Your task to perform on an android device: Do I have any events tomorrow? Image 0: 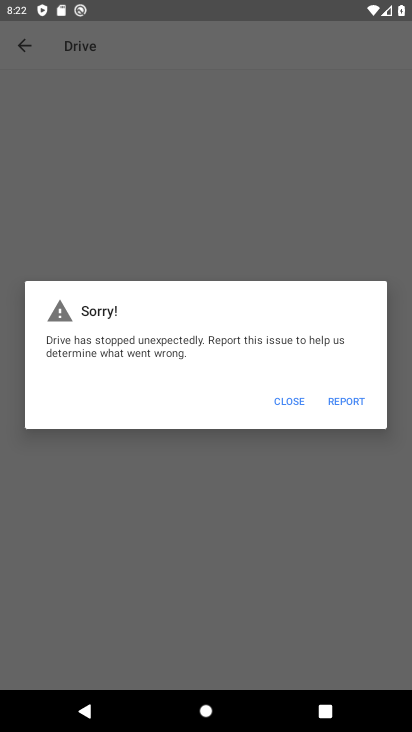
Step 0: press home button
Your task to perform on an android device: Do I have any events tomorrow? Image 1: 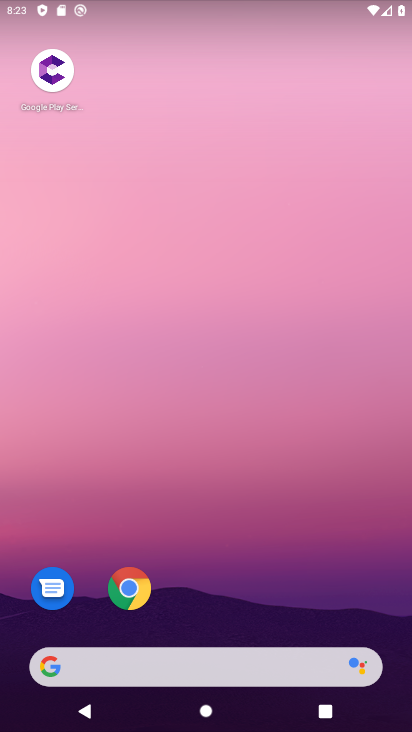
Step 1: drag from (213, 643) to (350, 19)
Your task to perform on an android device: Do I have any events tomorrow? Image 2: 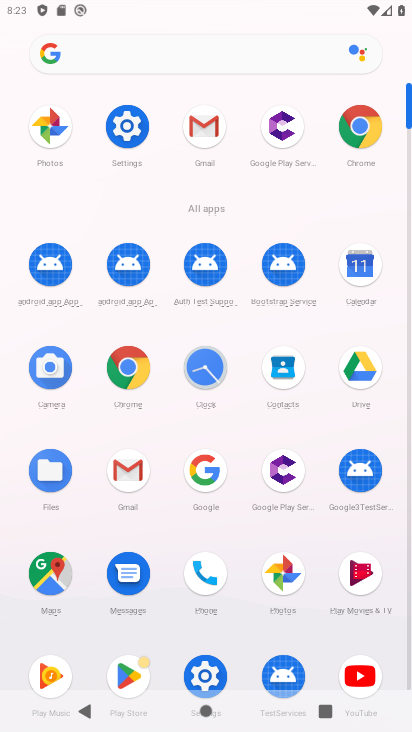
Step 2: click (356, 264)
Your task to perform on an android device: Do I have any events tomorrow? Image 3: 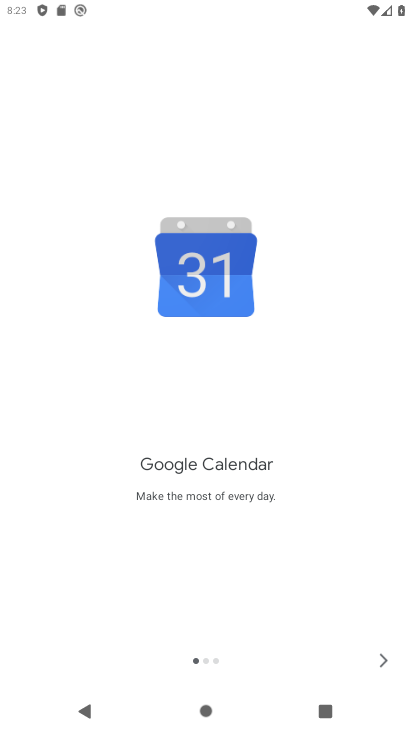
Step 3: click (385, 648)
Your task to perform on an android device: Do I have any events tomorrow? Image 4: 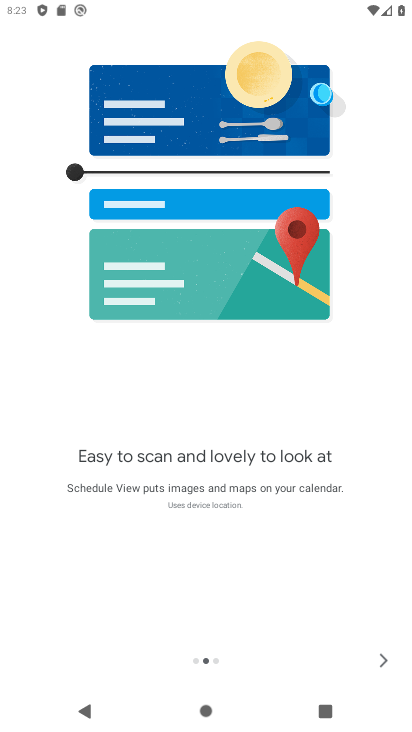
Step 4: click (384, 652)
Your task to perform on an android device: Do I have any events tomorrow? Image 5: 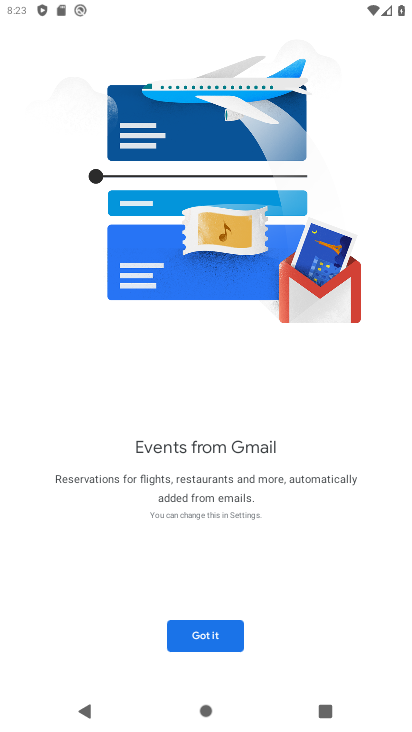
Step 5: click (224, 631)
Your task to perform on an android device: Do I have any events tomorrow? Image 6: 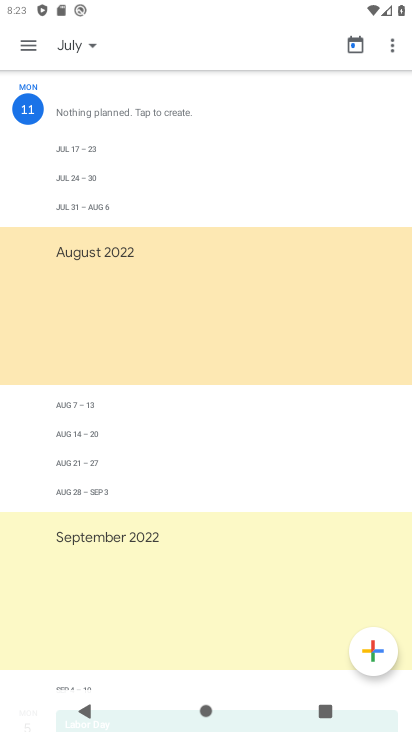
Step 6: click (10, 44)
Your task to perform on an android device: Do I have any events tomorrow? Image 7: 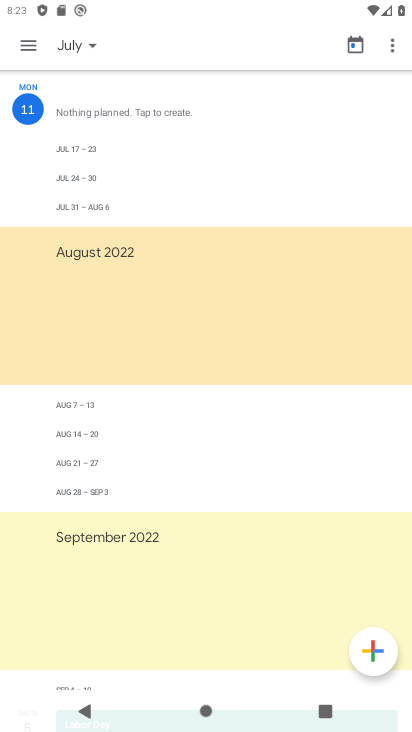
Step 7: click (31, 41)
Your task to perform on an android device: Do I have any events tomorrow? Image 8: 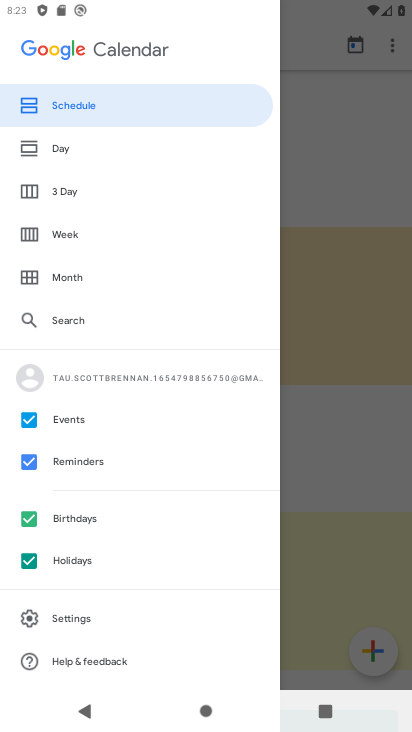
Step 8: click (81, 229)
Your task to perform on an android device: Do I have any events tomorrow? Image 9: 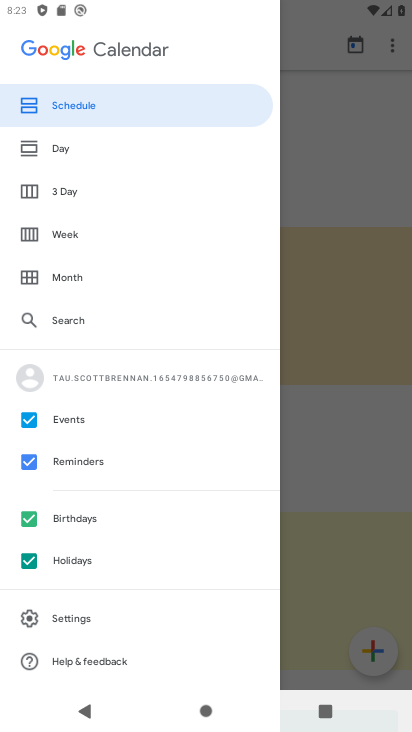
Step 9: click (34, 241)
Your task to perform on an android device: Do I have any events tomorrow? Image 10: 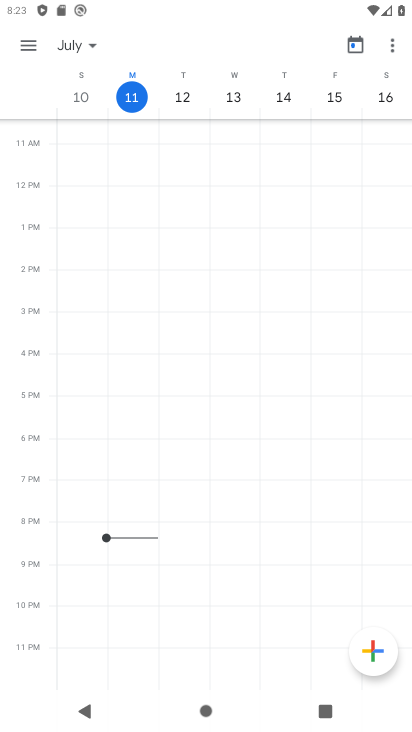
Step 10: click (175, 88)
Your task to perform on an android device: Do I have any events tomorrow? Image 11: 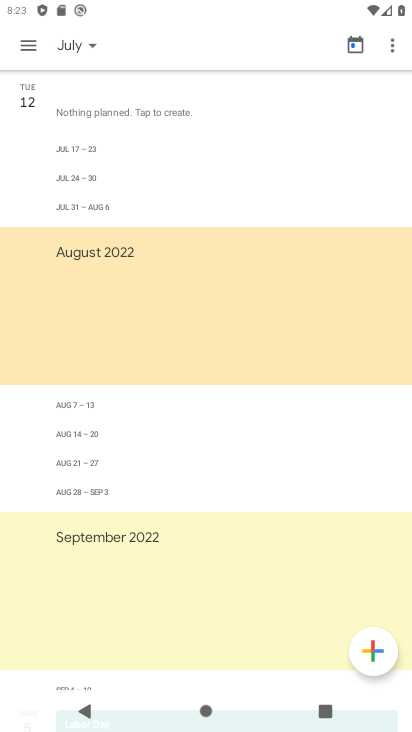
Step 11: task complete